Your task to perform on an android device: Find coffee shops on Maps Image 0: 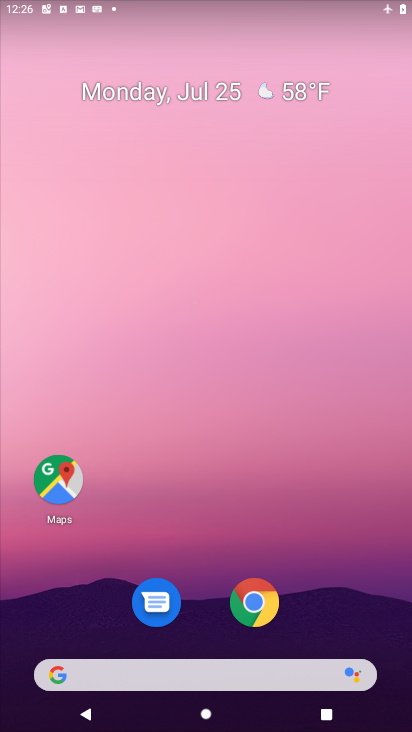
Step 0: click (72, 483)
Your task to perform on an android device: Find coffee shops on Maps Image 1: 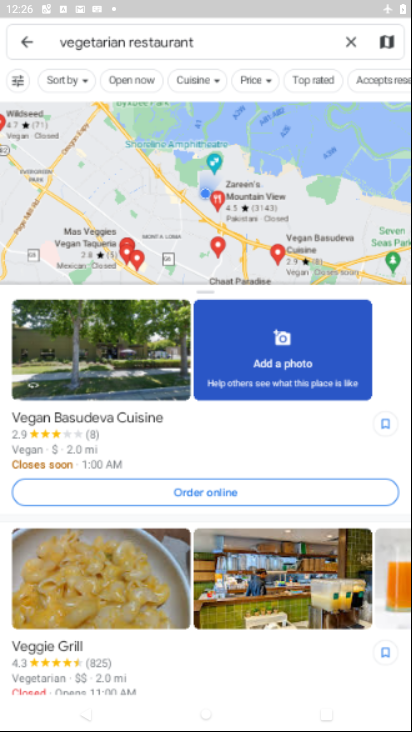
Step 1: click (353, 38)
Your task to perform on an android device: Find coffee shops on Maps Image 2: 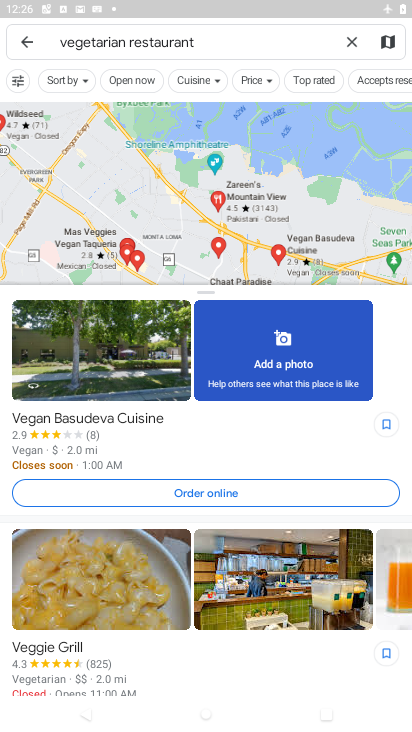
Step 2: click (353, 42)
Your task to perform on an android device: Find coffee shops on Maps Image 3: 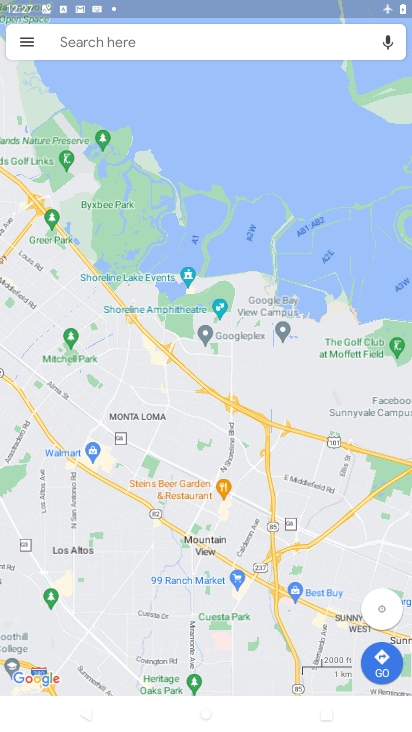
Step 3: click (172, 39)
Your task to perform on an android device: Find coffee shops on Maps Image 4: 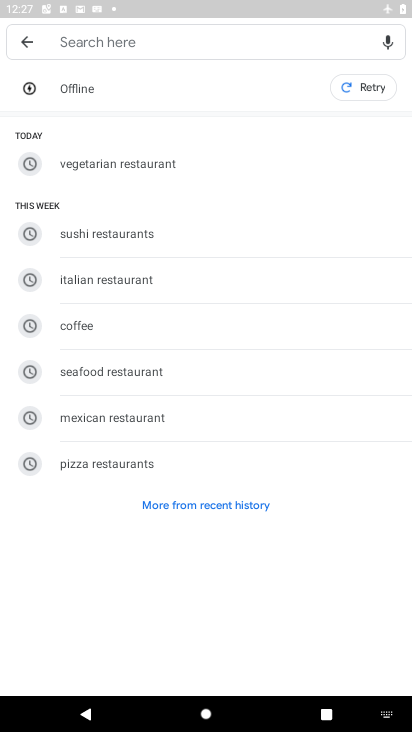
Step 4: type "coffee shops"
Your task to perform on an android device: Find coffee shops on Maps Image 5: 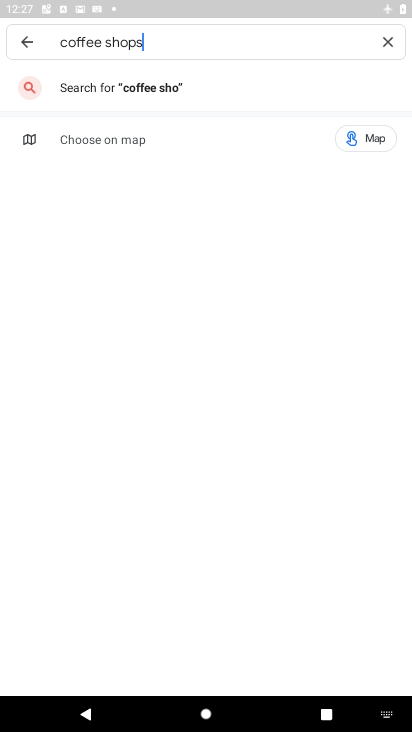
Step 5: type ""
Your task to perform on an android device: Find coffee shops on Maps Image 6: 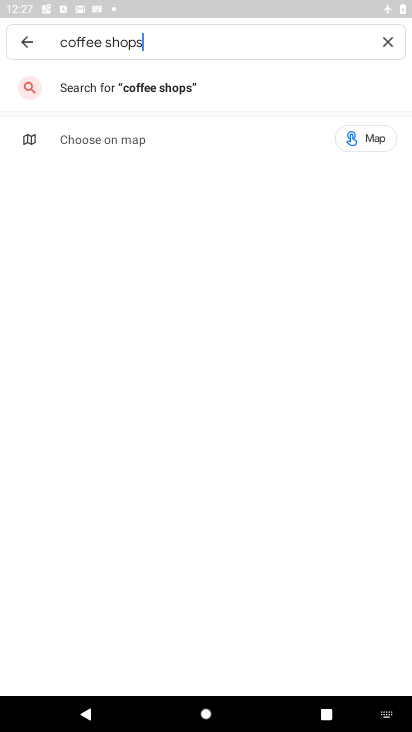
Step 6: click (201, 83)
Your task to perform on an android device: Find coffee shops on Maps Image 7: 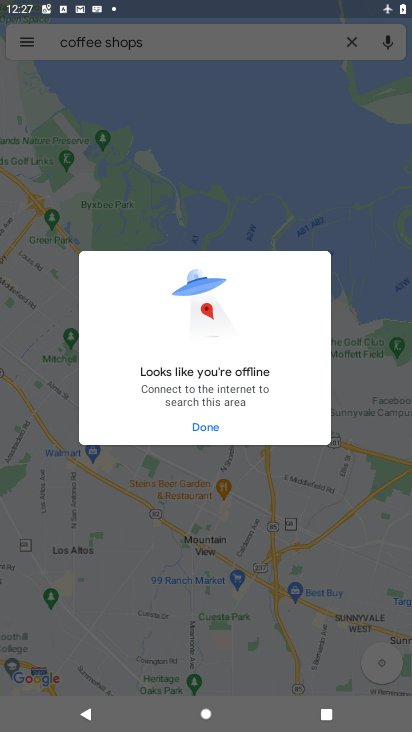
Step 7: task complete